Your task to perform on an android device: toggle sleep mode Image 0: 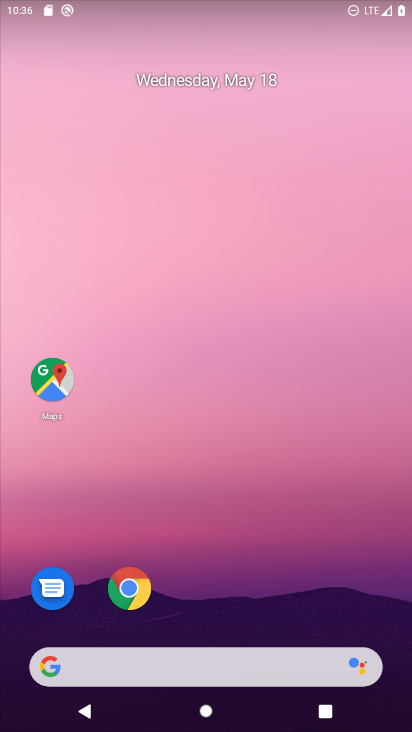
Step 0: drag from (341, 595) to (325, 0)
Your task to perform on an android device: toggle sleep mode Image 1: 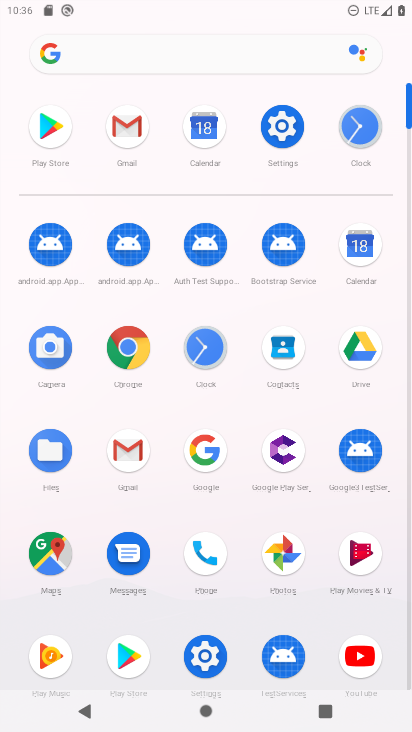
Step 1: click (282, 131)
Your task to perform on an android device: toggle sleep mode Image 2: 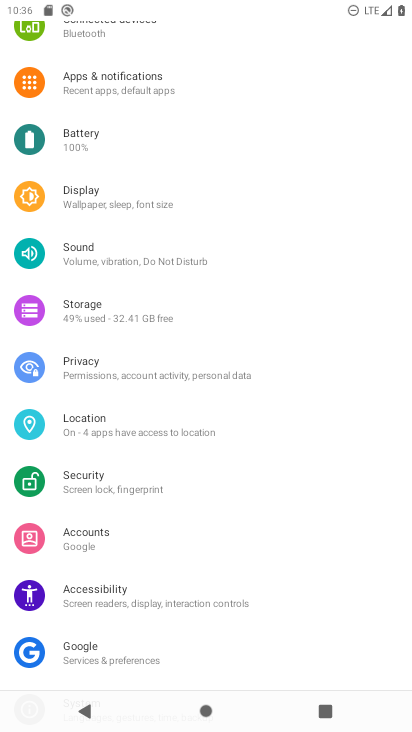
Step 2: click (80, 193)
Your task to perform on an android device: toggle sleep mode Image 3: 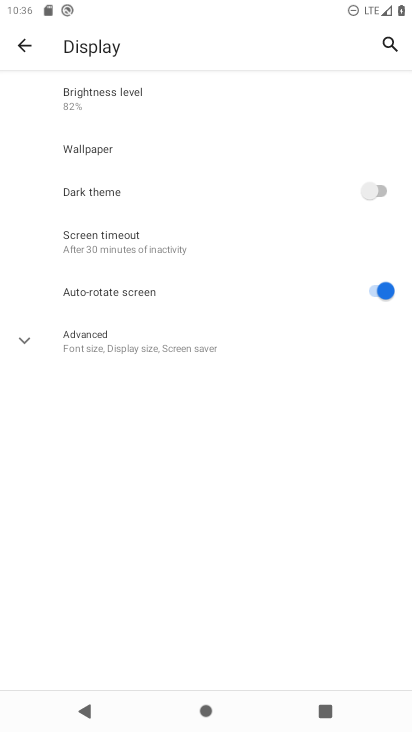
Step 3: click (20, 342)
Your task to perform on an android device: toggle sleep mode Image 4: 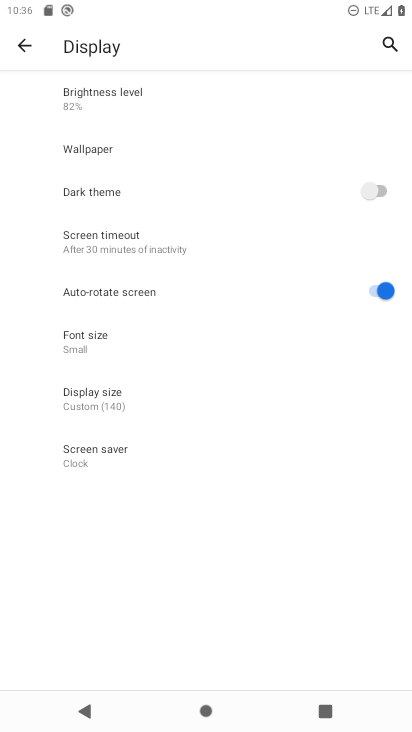
Step 4: task complete